Your task to perform on an android device: Do I have any events this weekend? Image 0: 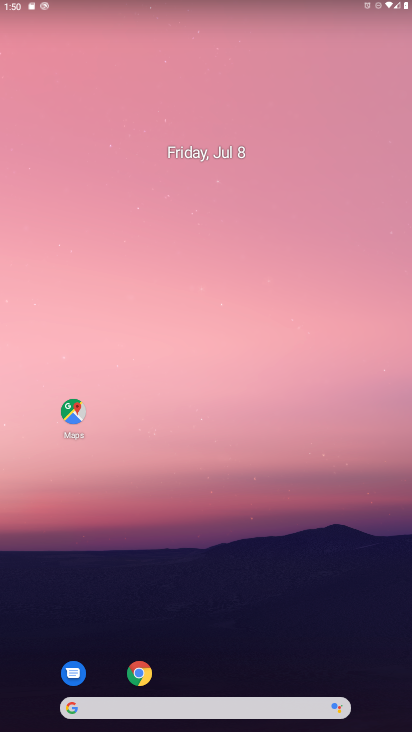
Step 0: drag from (406, 718) to (288, 152)
Your task to perform on an android device: Do I have any events this weekend? Image 1: 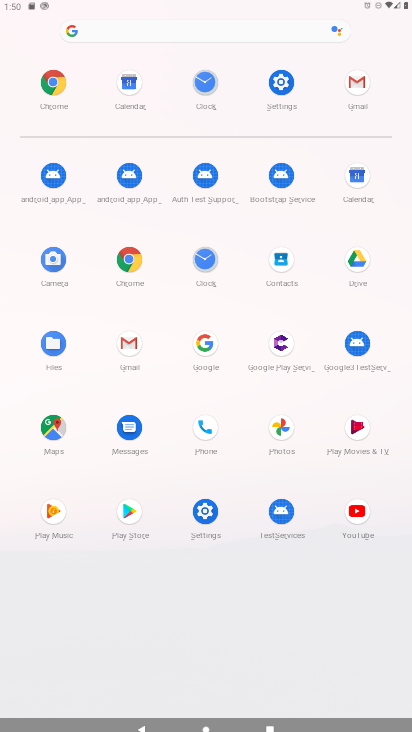
Step 1: click (364, 187)
Your task to perform on an android device: Do I have any events this weekend? Image 2: 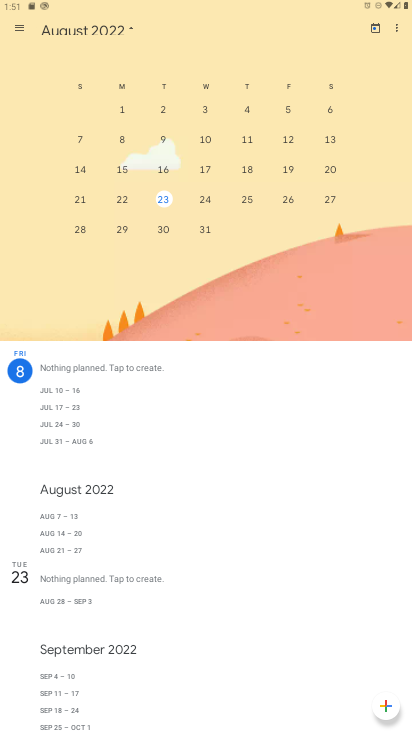
Step 2: drag from (72, 134) to (383, 121)
Your task to perform on an android device: Do I have any events this weekend? Image 3: 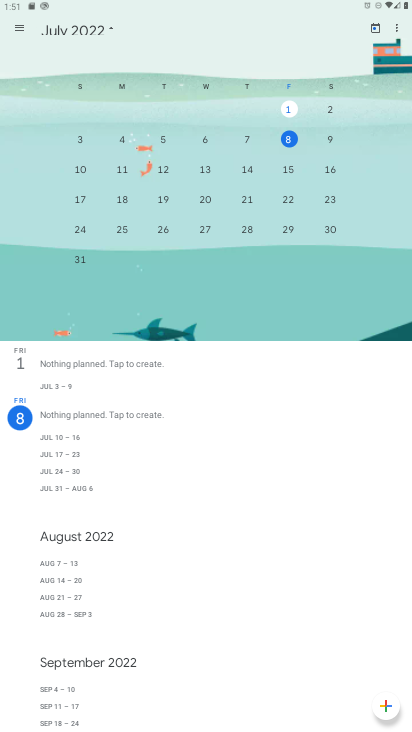
Step 3: click (283, 137)
Your task to perform on an android device: Do I have any events this weekend? Image 4: 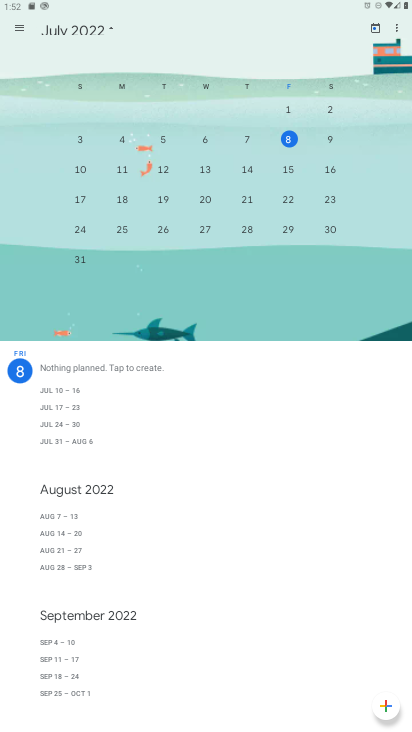
Step 4: click (23, 28)
Your task to perform on an android device: Do I have any events this weekend? Image 5: 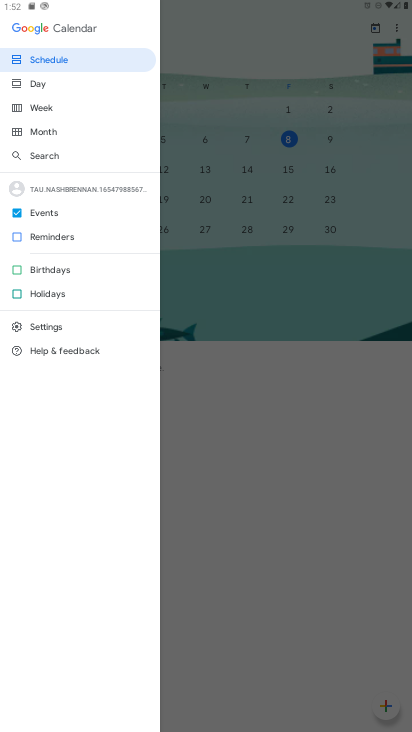
Step 5: click (35, 107)
Your task to perform on an android device: Do I have any events this weekend? Image 6: 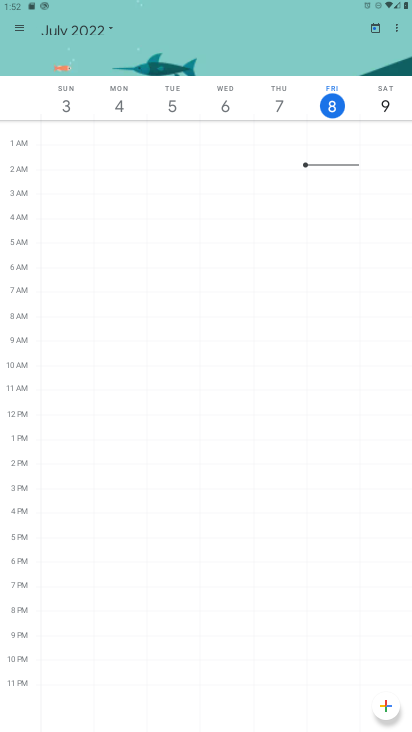
Step 6: click (331, 92)
Your task to perform on an android device: Do I have any events this weekend? Image 7: 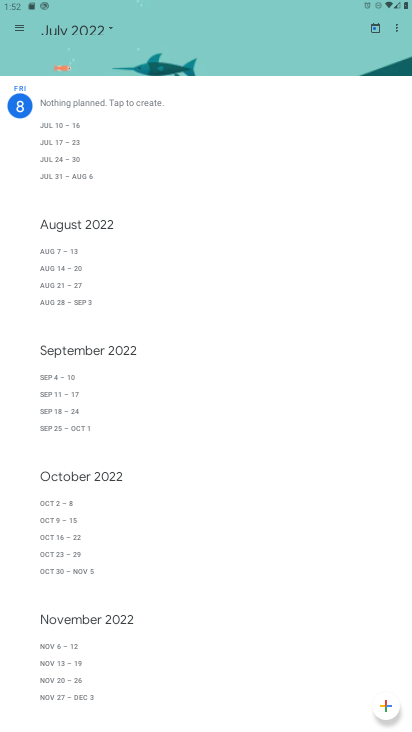
Step 7: click (18, 26)
Your task to perform on an android device: Do I have any events this weekend? Image 8: 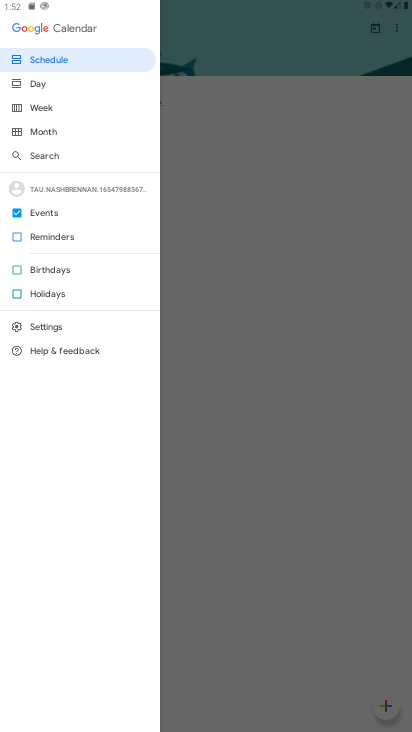
Step 8: click (48, 63)
Your task to perform on an android device: Do I have any events this weekend? Image 9: 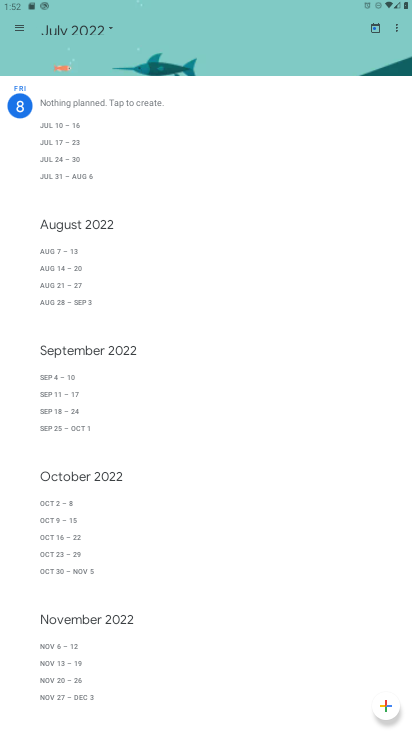
Step 9: click (12, 27)
Your task to perform on an android device: Do I have any events this weekend? Image 10: 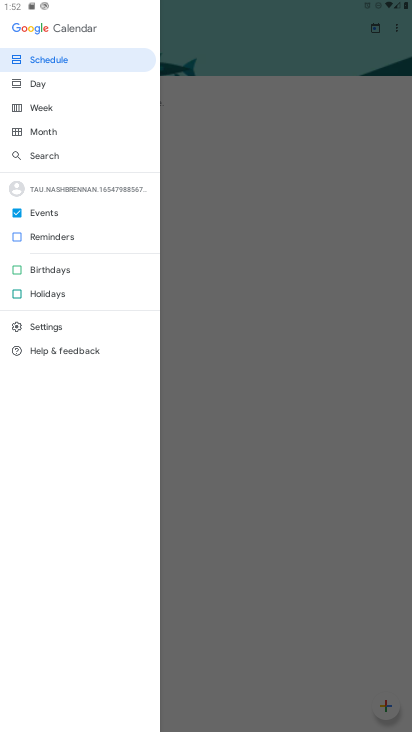
Step 10: click (18, 293)
Your task to perform on an android device: Do I have any events this weekend? Image 11: 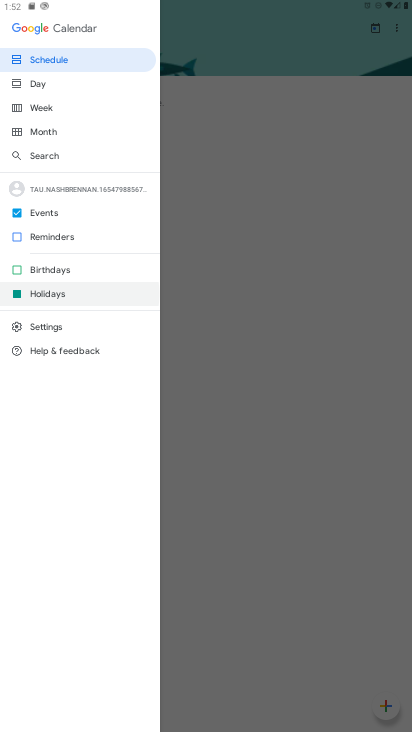
Step 11: click (14, 269)
Your task to perform on an android device: Do I have any events this weekend? Image 12: 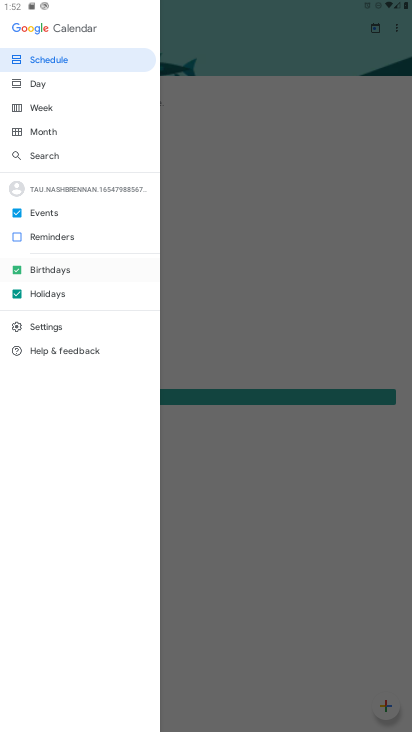
Step 12: click (13, 239)
Your task to perform on an android device: Do I have any events this weekend? Image 13: 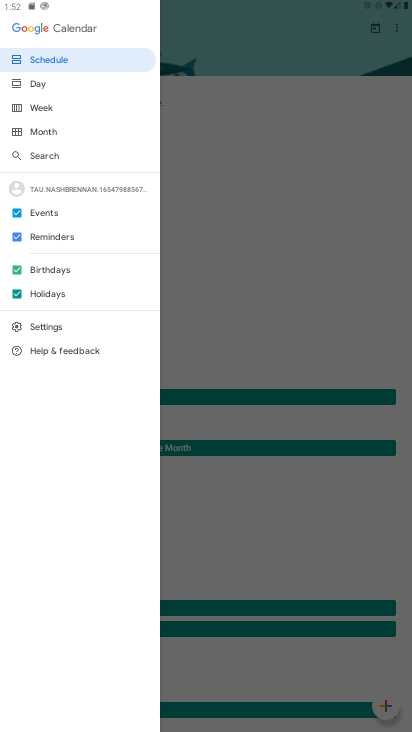
Step 13: click (74, 63)
Your task to perform on an android device: Do I have any events this weekend? Image 14: 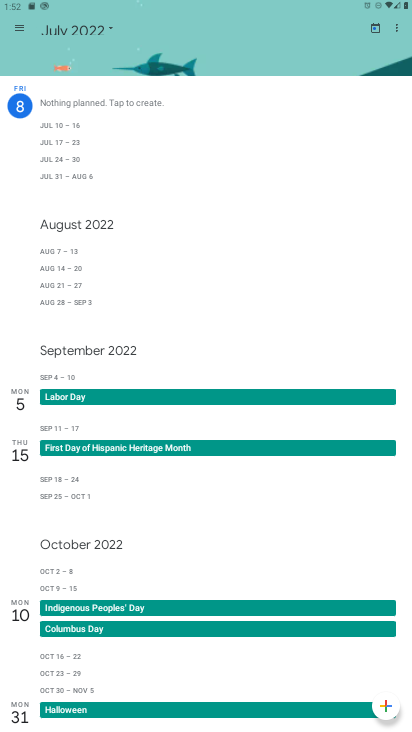
Step 14: task complete